Your task to perform on an android device: Open the calendar app, open the side menu, and click the "Day" option Image 0: 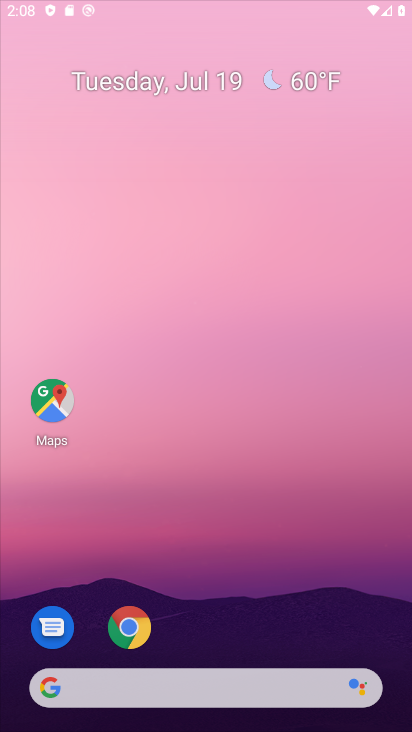
Step 0: click (243, 73)
Your task to perform on an android device: Open the calendar app, open the side menu, and click the "Day" option Image 1: 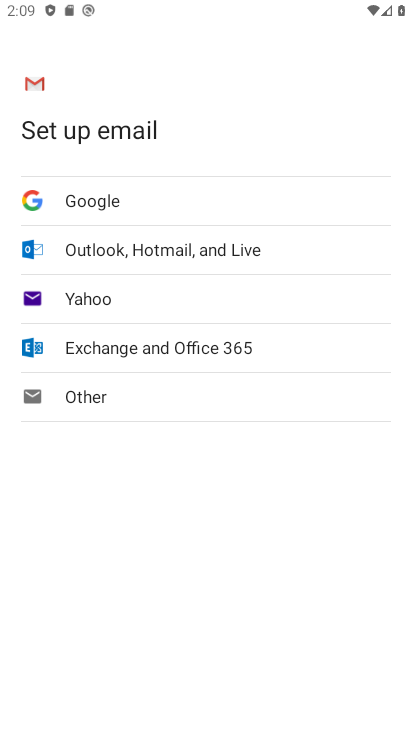
Step 1: press back button
Your task to perform on an android device: Open the calendar app, open the side menu, and click the "Day" option Image 2: 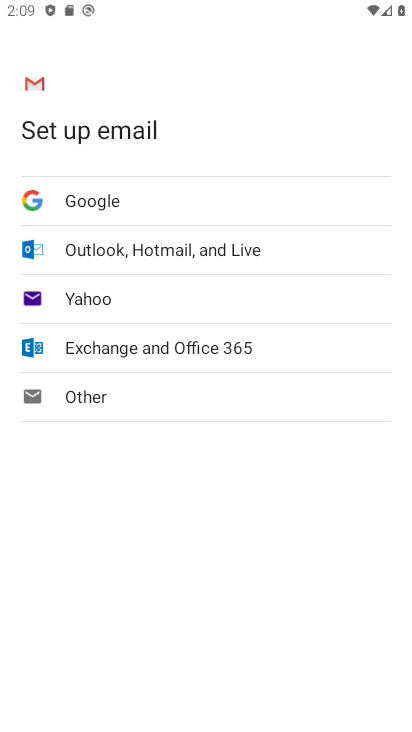
Step 2: press back button
Your task to perform on an android device: Open the calendar app, open the side menu, and click the "Day" option Image 3: 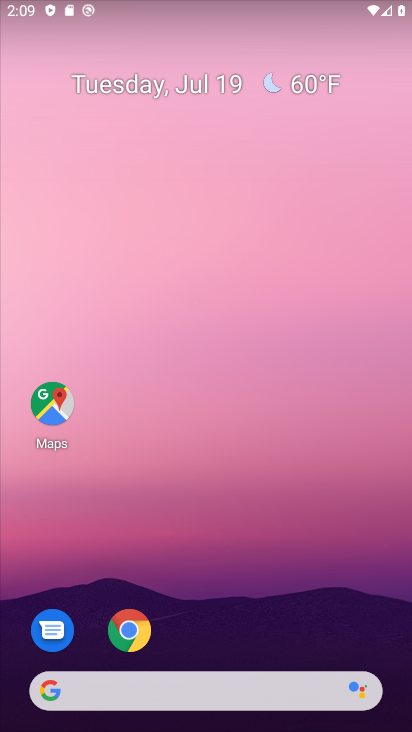
Step 3: drag from (267, 672) to (149, 122)
Your task to perform on an android device: Open the calendar app, open the side menu, and click the "Day" option Image 4: 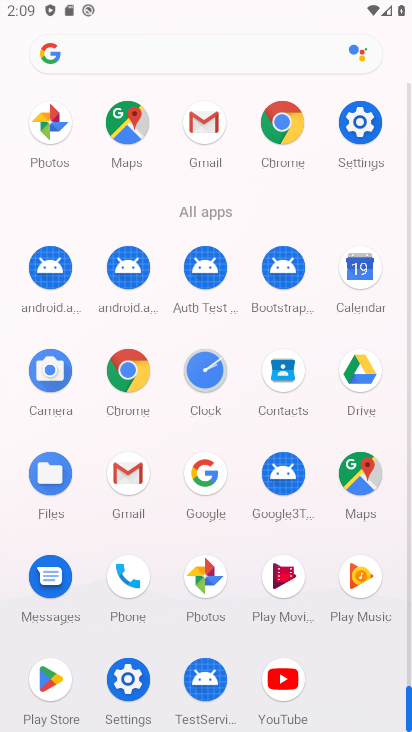
Step 4: click (206, 372)
Your task to perform on an android device: Open the calendar app, open the side menu, and click the "Day" option Image 5: 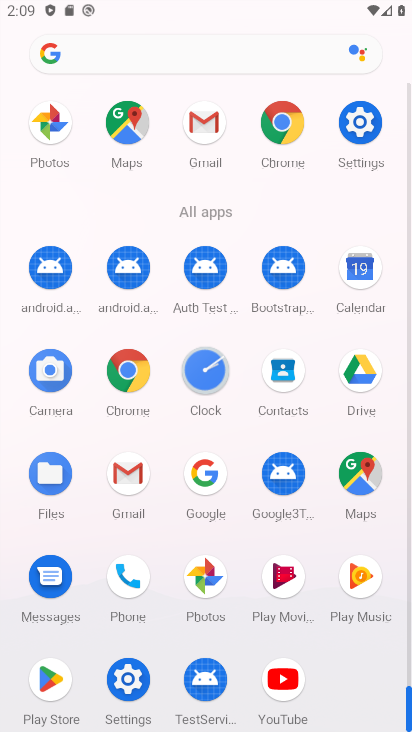
Step 5: click (207, 371)
Your task to perform on an android device: Open the calendar app, open the side menu, and click the "Day" option Image 6: 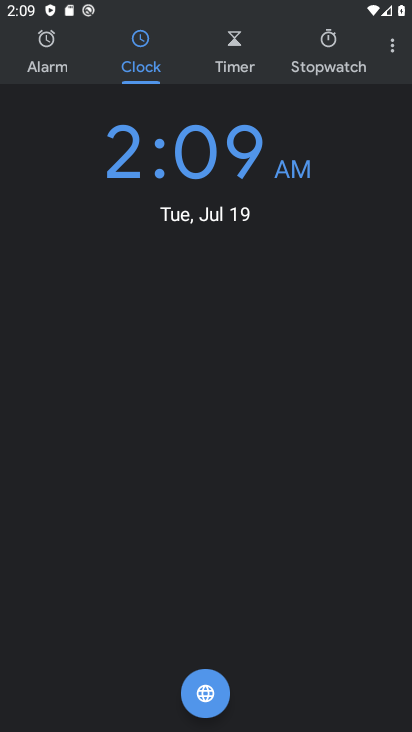
Step 6: press back button
Your task to perform on an android device: Open the calendar app, open the side menu, and click the "Day" option Image 7: 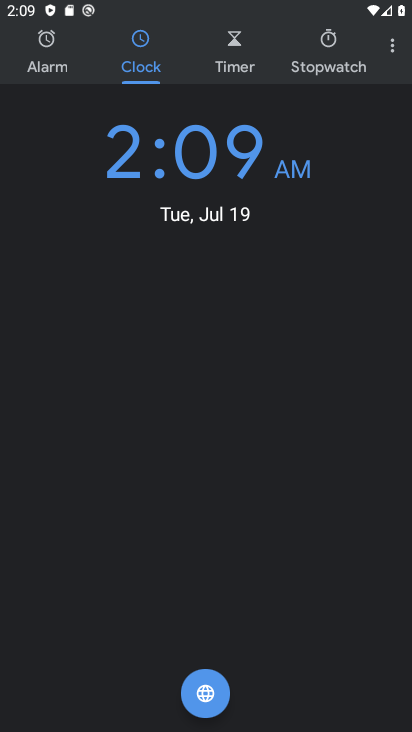
Step 7: press back button
Your task to perform on an android device: Open the calendar app, open the side menu, and click the "Day" option Image 8: 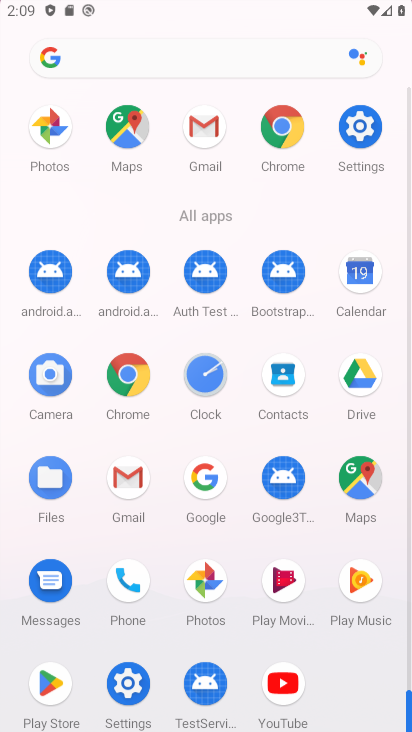
Step 8: press back button
Your task to perform on an android device: Open the calendar app, open the side menu, and click the "Day" option Image 9: 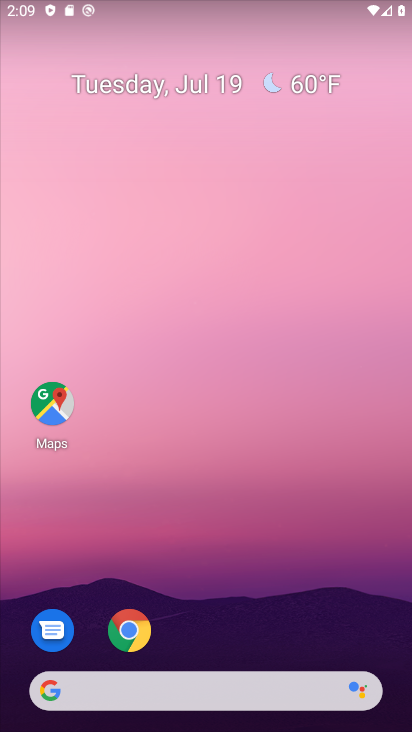
Step 9: drag from (170, 657) to (172, 100)
Your task to perform on an android device: Open the calendar app, open the side menu, and click the "Day" option Image 10: 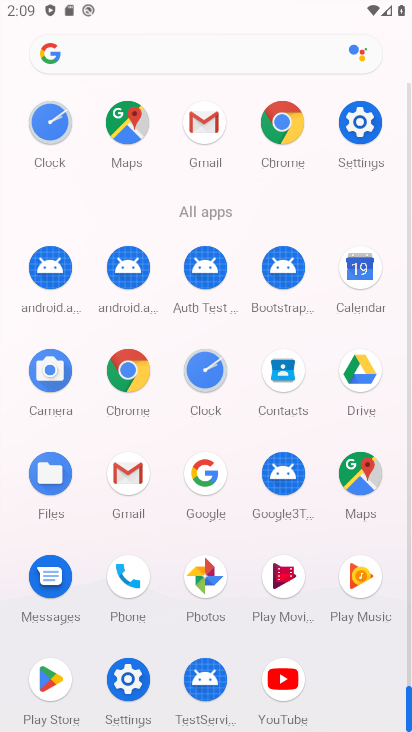
Step 10: click (359, 278)
Your task to perform on an android device: Open the calendar app, open the side menu, and click the "Day" option Image 11: 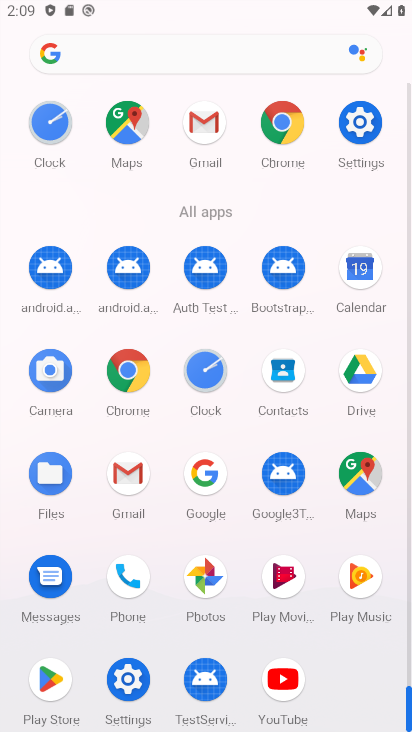
Step 11: click (362, 258)
Your task to perform on an android device: Open the calendar app, open the side menu, and click the "Day" option Image 12: 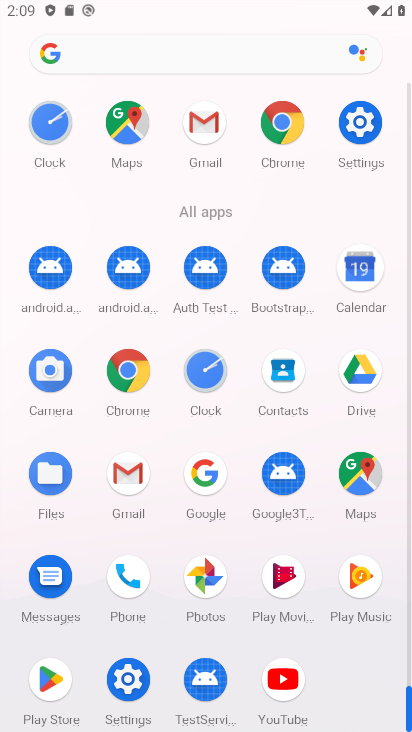
Step 12: click (362, 258)
Your task to perform on an android device: Open the calendar app, open the side menu, and click the "Day" option Image 13: 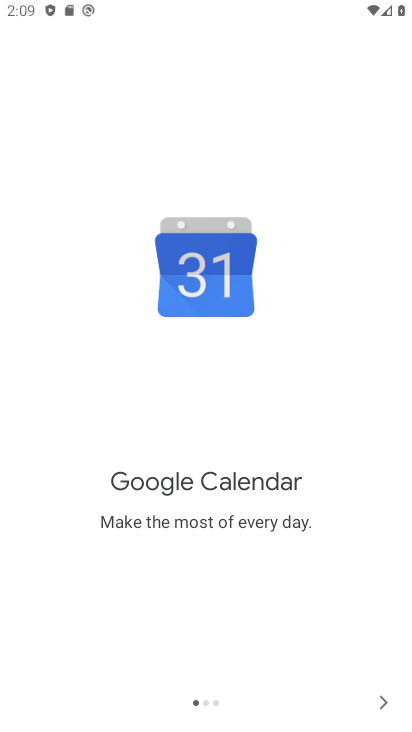
Step 13: click (384, 701)
Your task to perform on an android device: Open the calendar app, open the side menu, and click the "Day" option Image 14: 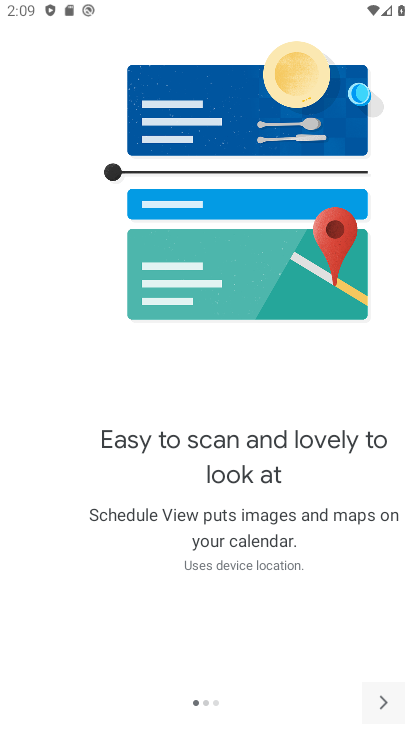
Step 14: click (383, 701)
Your task to perform on an android device: Open the calendar app, open the side menu, and click the "Day" option Image 15: 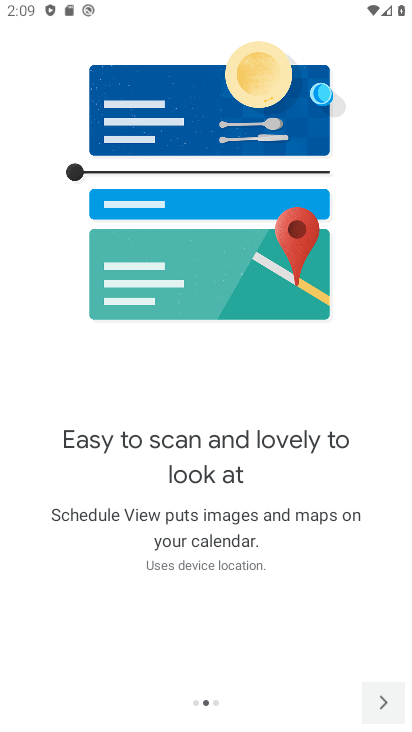
Step 15: click (383, 702)
Your task to perform on an android device: Open the calendar app, open the side menu, and click the "Day" option Image 16: 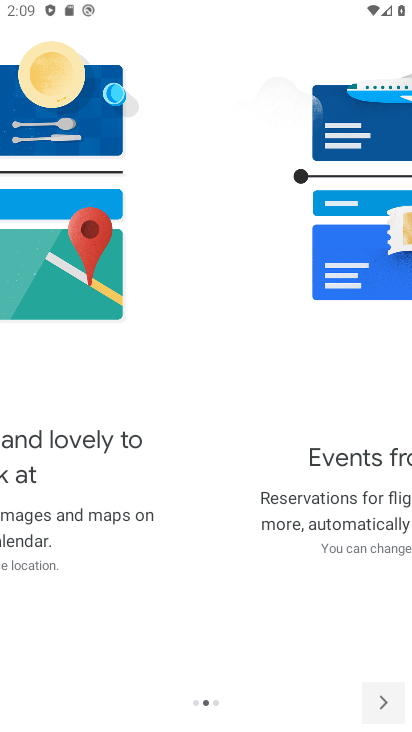
Step 16: click (383, 706)
Your task to perform on an android device: Open the calendar app, open the side menu, and click the "Day" option Image 17: 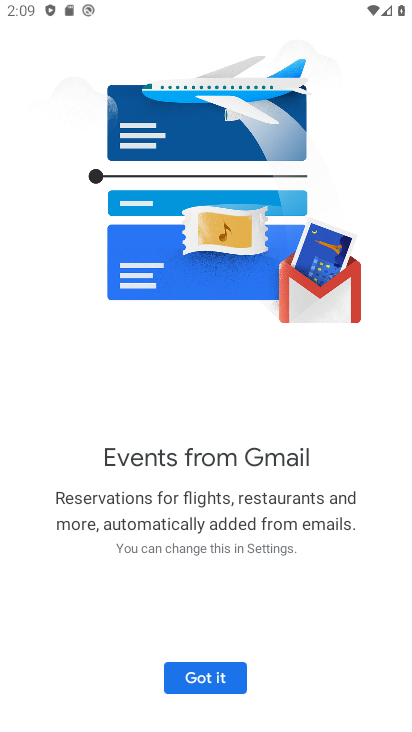
Step 17: click (213, 669)
Your task to perform on an android device: Open the calendar app, open the side menu, and click the "Day" option Image 18: 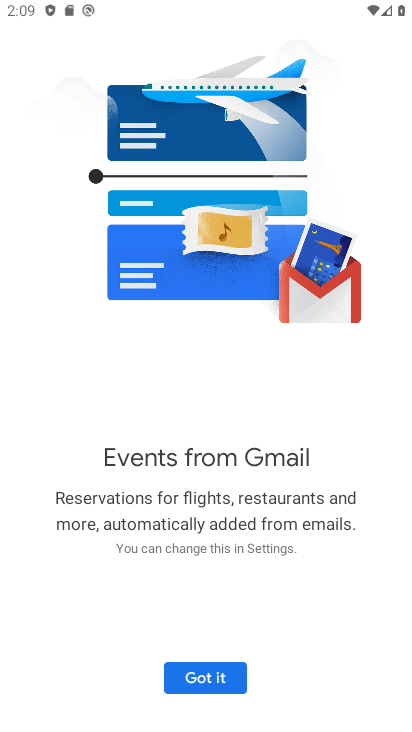
Step 18: click (215, 670)
Your task to perform on an android device: Open the calendar app, open the side menu, and click the "Day" option Image 19: 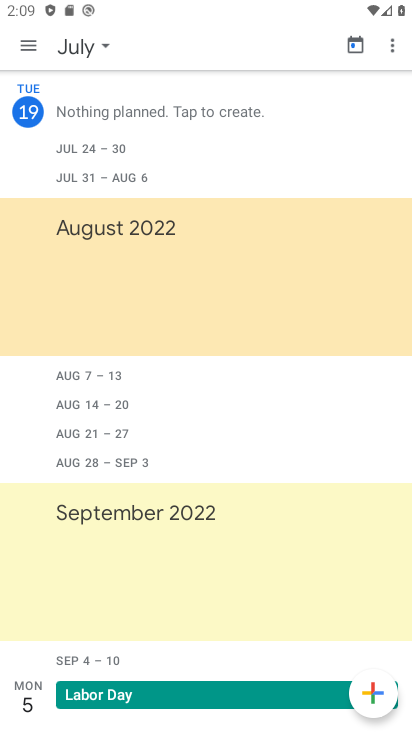
Step 19: click (27, 42)
Your task to perform on an android device: Open the calendar app, open the side menu, and click the "Day" option Image 20: 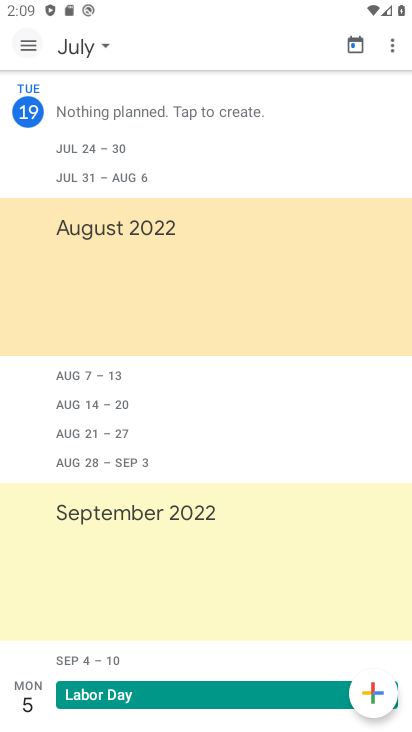
Step 20: click (30, 40)
Your task to perform on an android device: Open the calendar app, open the side menu, and click the "Day" option Image 21: 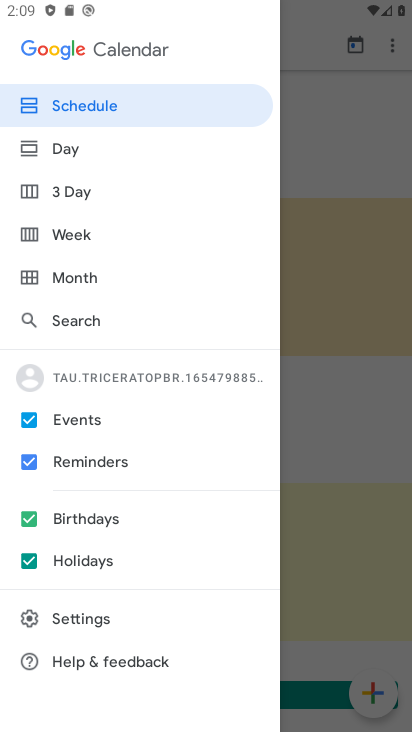
Step 21: click (71, 134)
Your task to perform on an android device: Open the calendar app, open the side menu, and click the "Day" option Image 22: 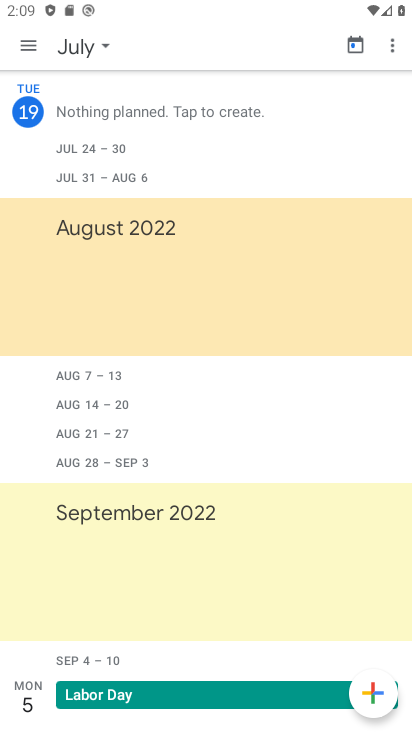
Step 22: click (72, 149)
Your task to perform on an android device: Open the calendar app, open the side menu, and click the "Day" option Image 23: 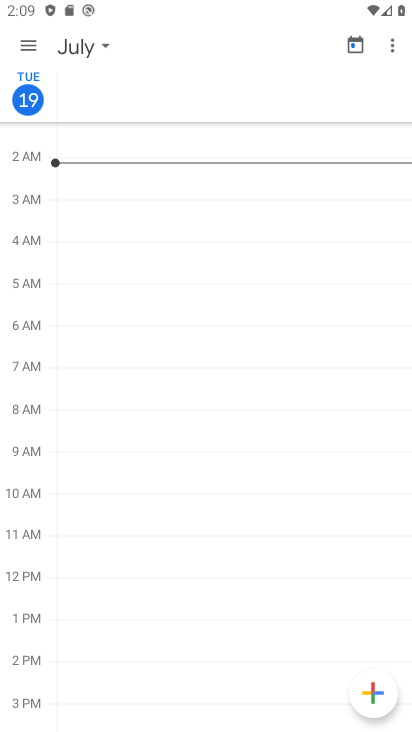
Step 23: task complete